Your task to perform on an android device: turn on the 24-hour format for clock Image 0: 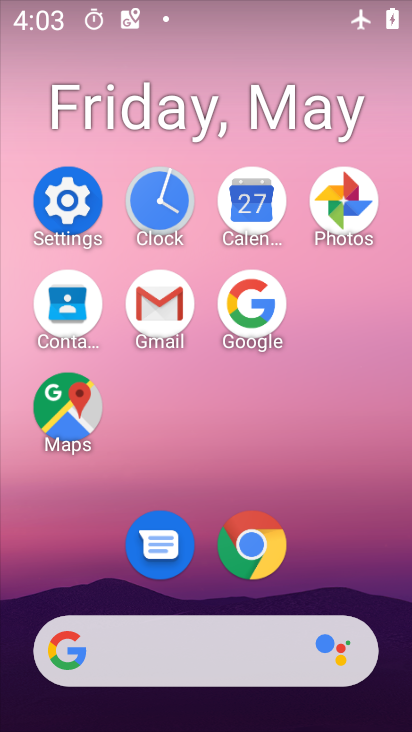
Step 0: click (165, 219)
Your task to perform on an android device: turn on the 24-hour format for clock Image 1: 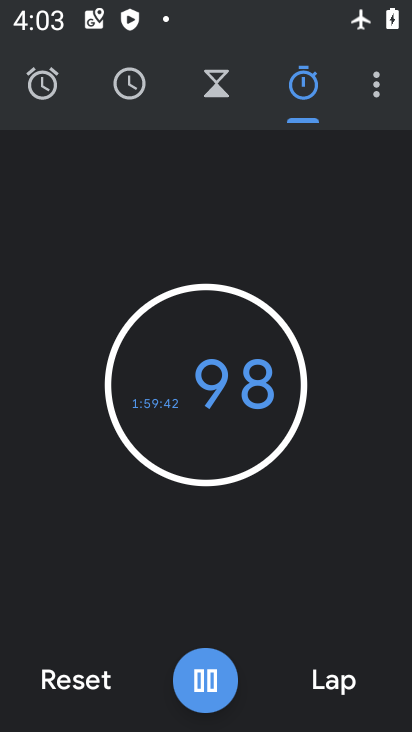
Step 1: click (388, 83)
Your task to perform on an android device: turn on the 24-hour format for clock Image 2: 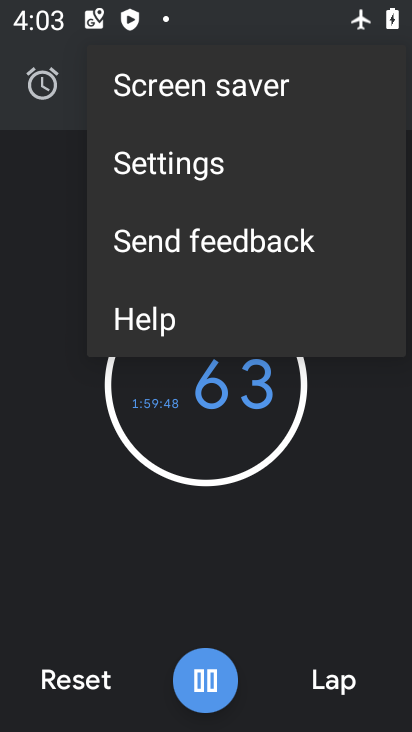
Step 2: click (217, 158)
Your task to perform on an android device: turn on the 24-hour format for clock Image 3: 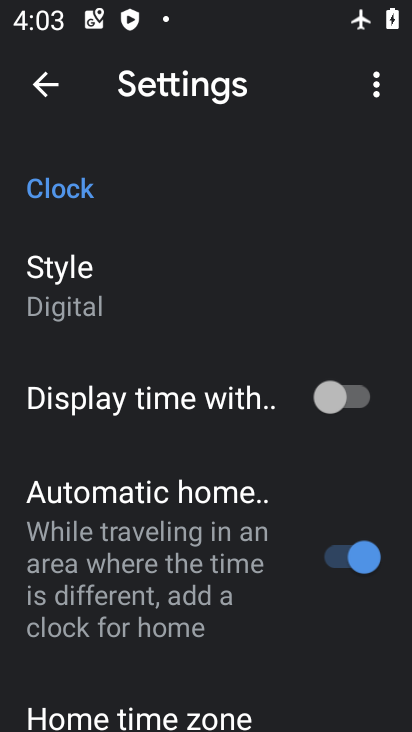
Step 3: drag from (204, 564) to (208, 105)
Your task to perform on an android device: turn on the 24-hour format for clock Image 4: 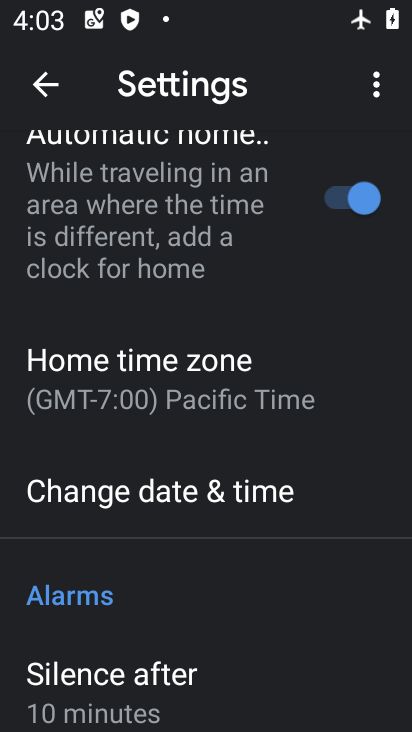
Step 4: click (223, 522)
Your task to perform on an android device: turn on the 24-hour format for clock Image 5: 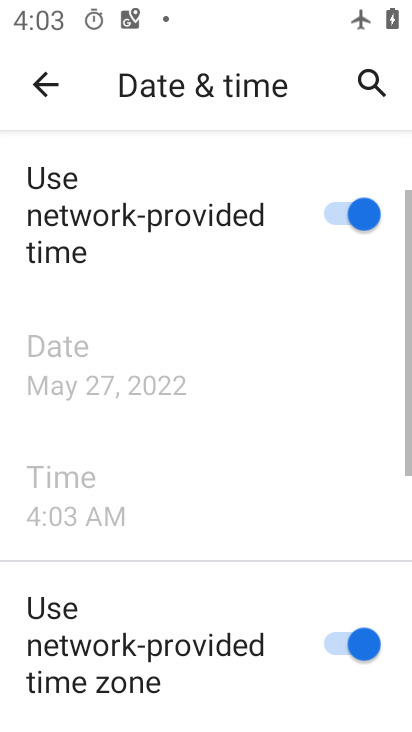
Step 5: drag from (225, 514) to (214, 184)
Your task to perform on an android device: turn on the 24-hour format for clock Image 6: 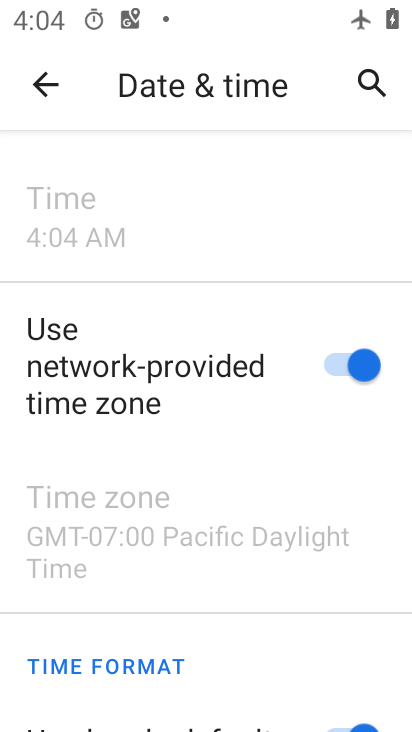
Step 6: drag from (285, 608) to (283, 249)
Your task to perform on an android device: turn on the 24-hour format for clock Image 7: 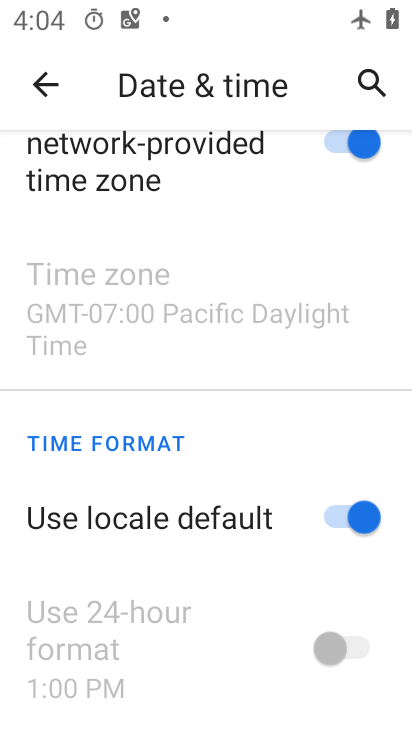
Step 7: click (342, 530)
Your task to perform on an android device: turn on the 24-hour format for clock Image 8: 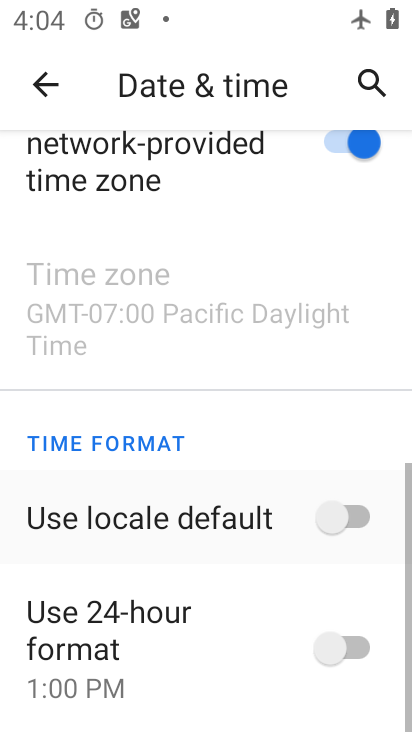
Step 8: click (352, 639)
Your task to perform on an android device: turn on the 24-hour format for clock Image 9: 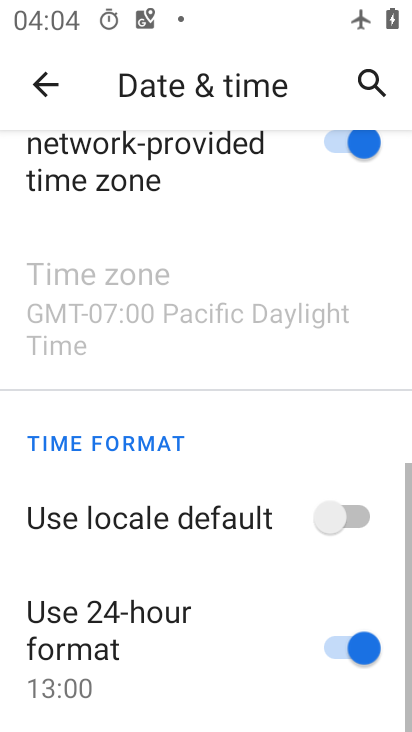
Step 9: task complete